Your task to perform on an android device: Search for Italian restaurants on Maps Image 0: 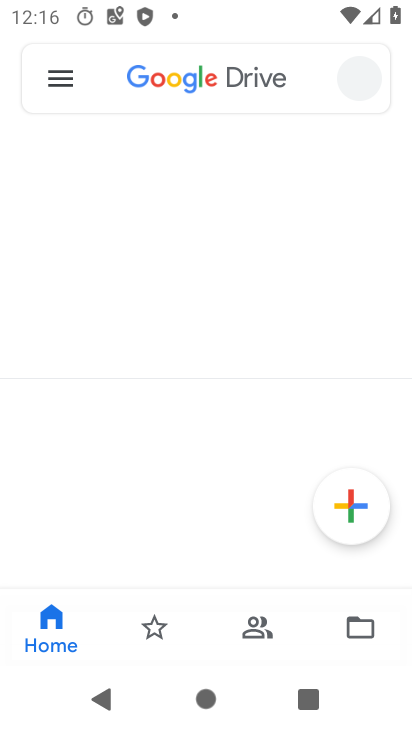
Step 0: press home button
Your task to perform on an android device: Search for Italian restaurants on Maps Image 1: 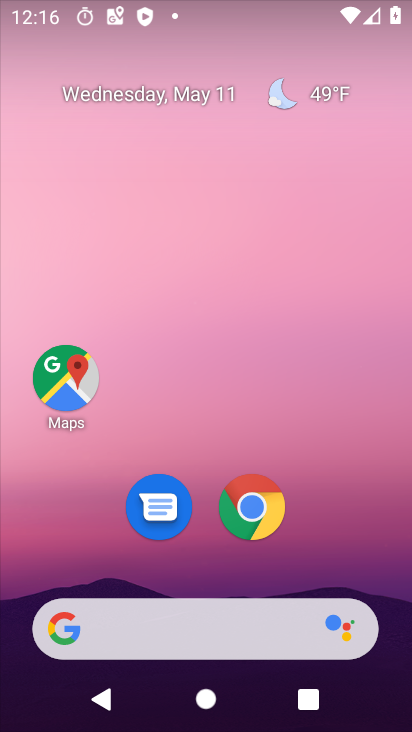
Step 1: click (71, 378)
Your task to perform on an android device: Search for Italian restaurants on Maps Image 2: 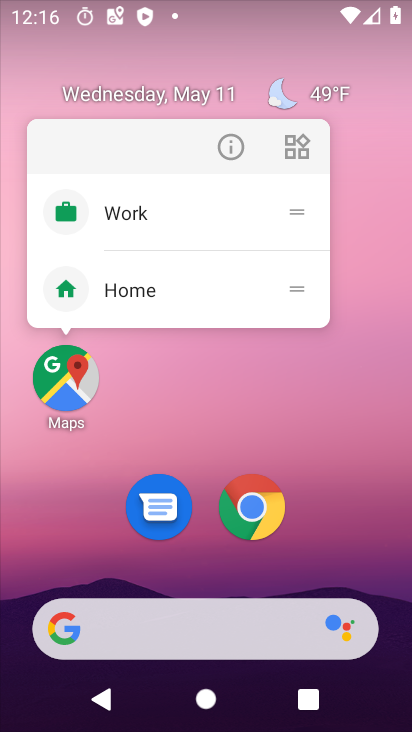
Step 2: click (67, 381)
Your task to perform on an android device: Search for Italian restaurants on Maps Image 3: 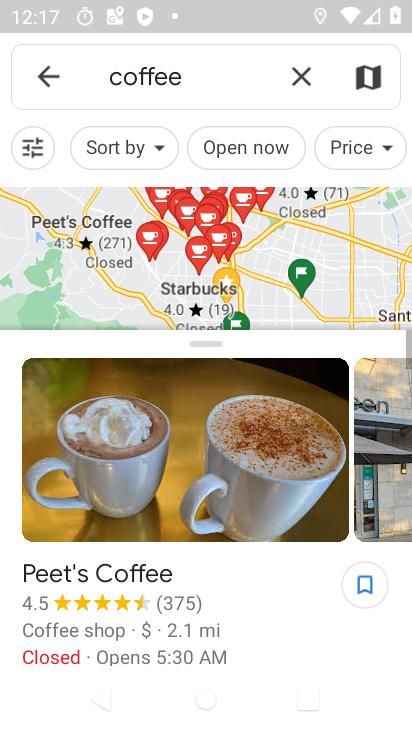
Step 3: click (288, 75)
Your task to perform on an android device: Search for Italian restaurants on Maps Image 4: 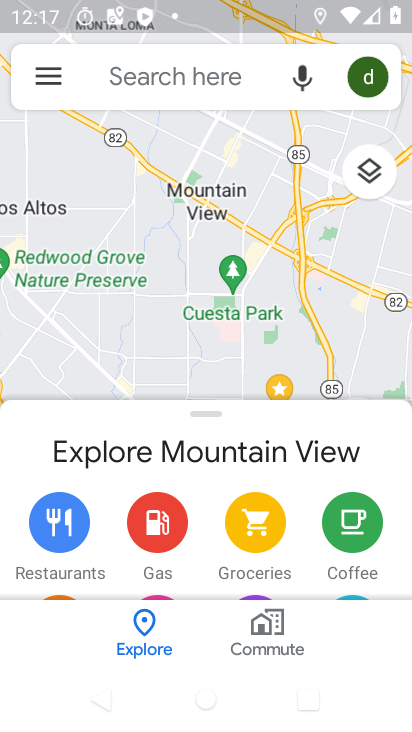
Step 4: click (161, 77)
Your task to perform on an android device: Search for Italian restaurants on Maps Image 5: 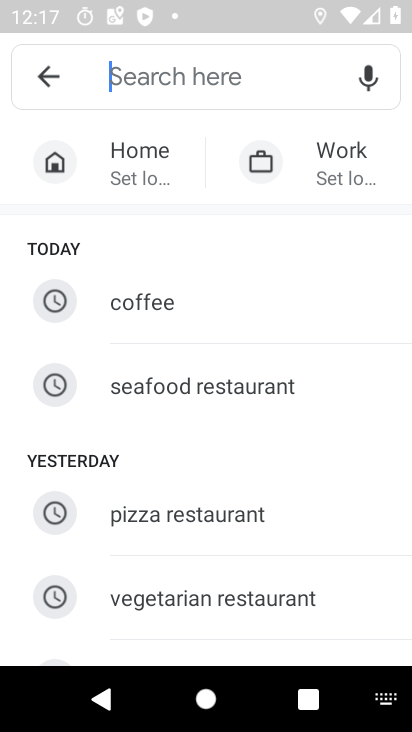
Step 5: drag from (266, 523) to (291, 197)
Your task to perform on an android device: Search for Italian restaurants on Maps Image 6: 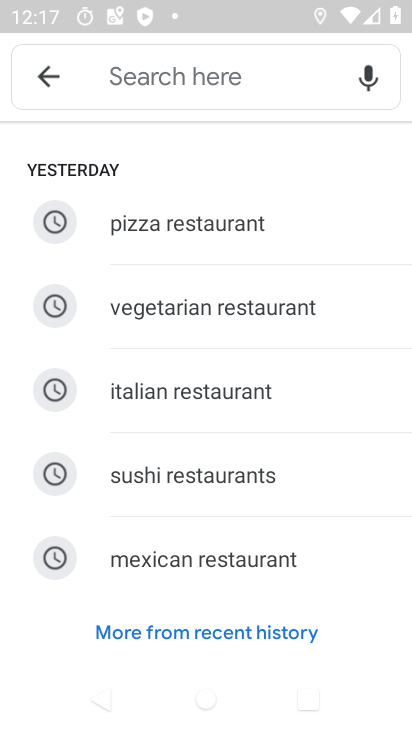
Step 6: click (181, 394)
Your task to perform on an android device: Search for Italian restaurants on Maps Image 7: 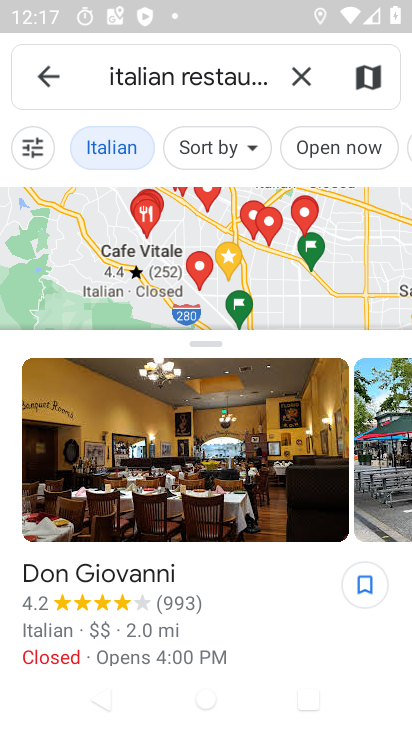
Step 7: task complete